Your task to perform on an android device: open chrome privacy settings Image 0: 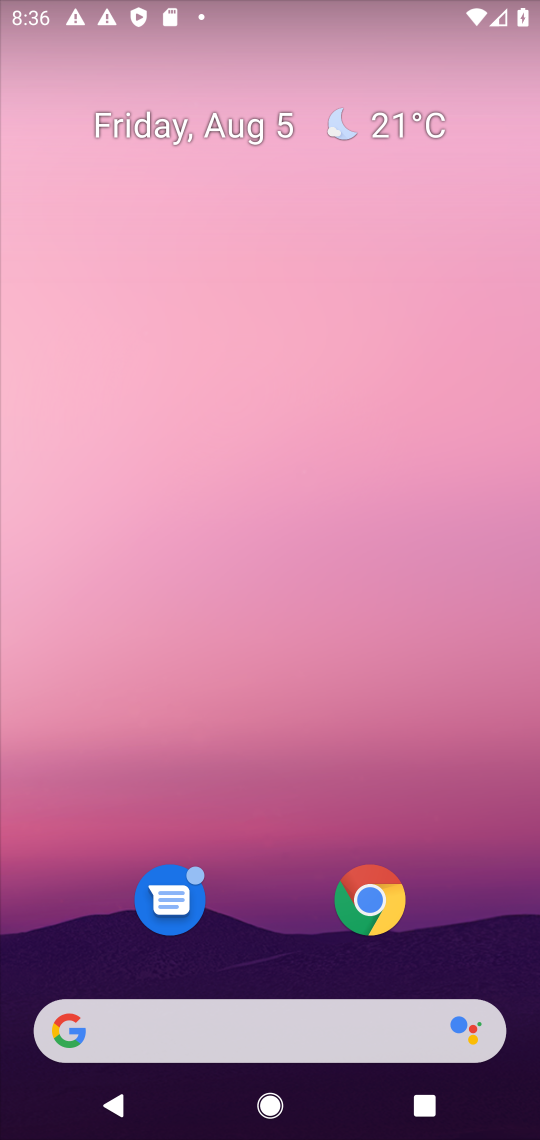
Step 0: drag from (284, 939) to (383, 12)
Your task to perform on an android device: open chrome privacy settings Image 1: 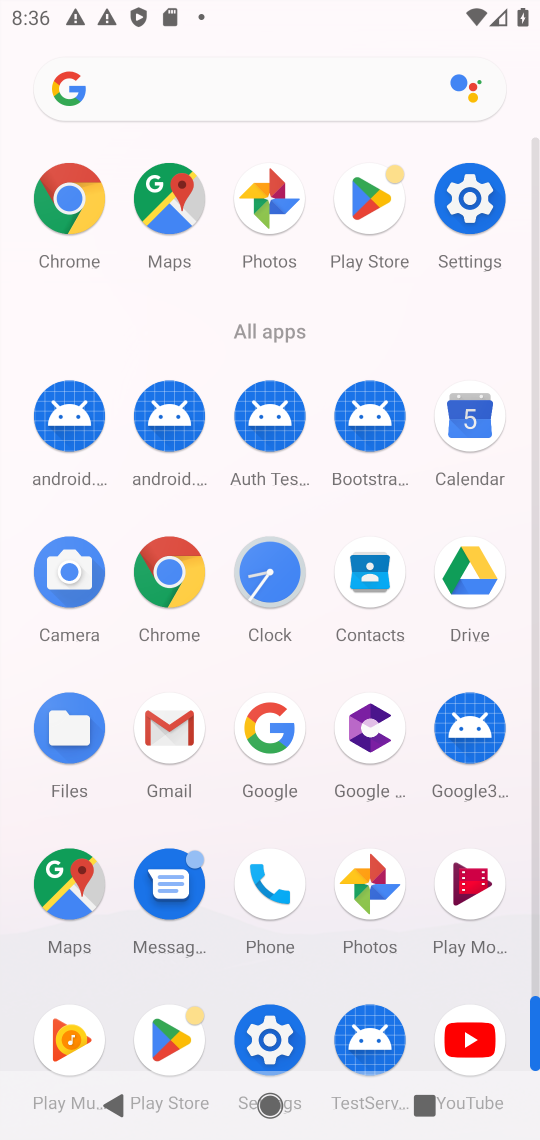
Step 1: click (272, 1027)
Your task to perform on an android device: open chrome privacy settings Image 2: 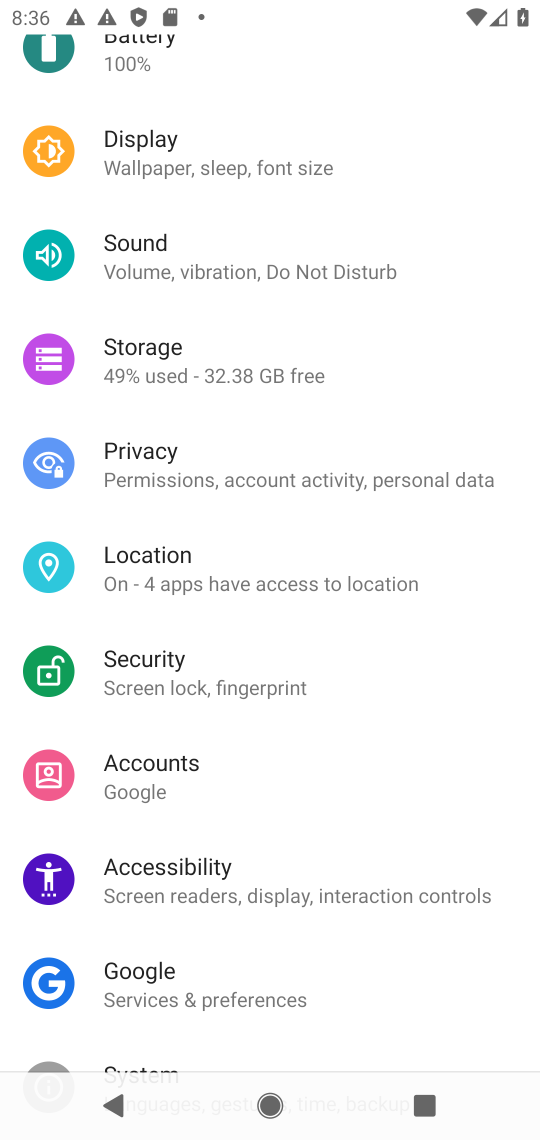
Step 2: click (182, 458)
Your task to perform on an android device: open chrome privacy settings Image 3: 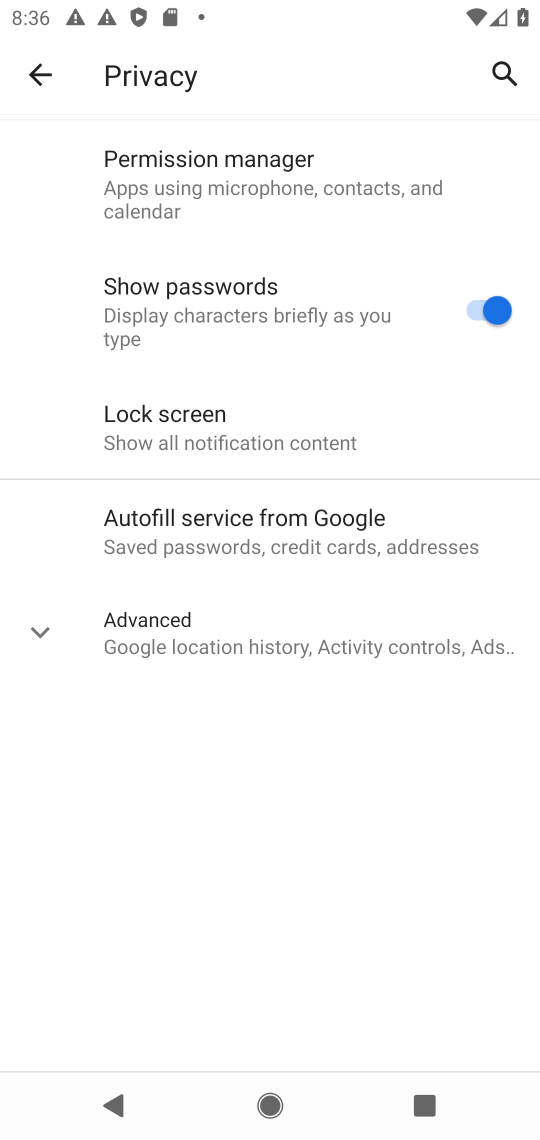
Step 3: task complete